Your task to perform on an android device: Open location settings Image 0: 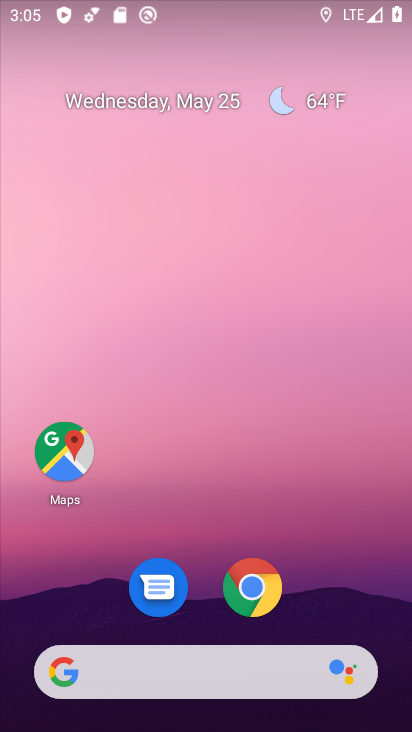
Step 0: drag from (362, 609) to (265, 97)
Your task to perform on an android device: Open location settings Image 1: 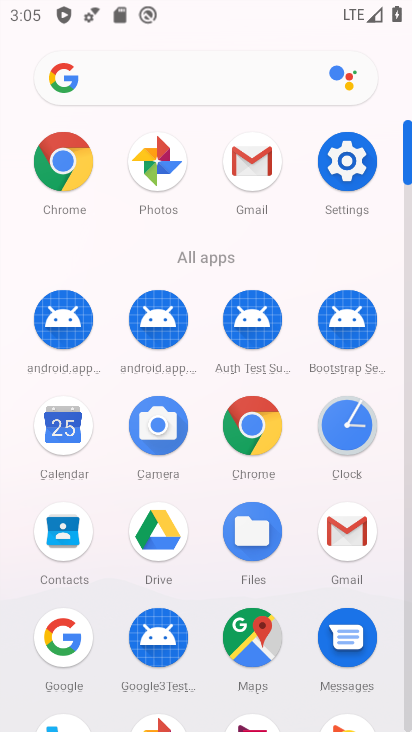
Step 1: click (356, 173)
Your task to perform on an android device: Open location settings Image 2: 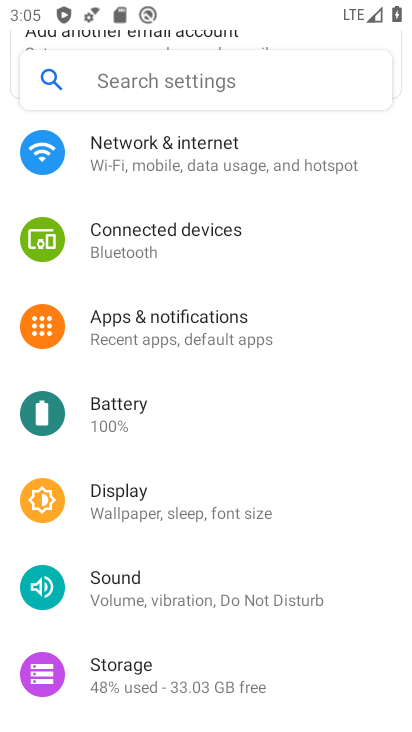
Step 2: drag from (255, 626) to (219, 159)
Your task to perform on an android device: Open location settings Image 3: 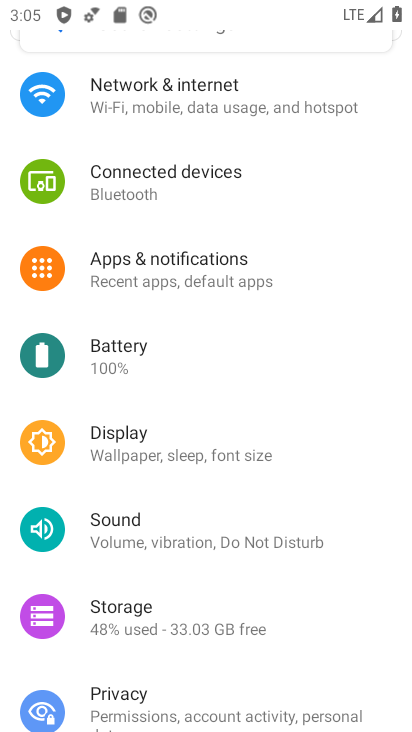
Step 3: drag from (222, 631) to (203, 361)
Your task to perform on an android device: Open location settings Image 4: 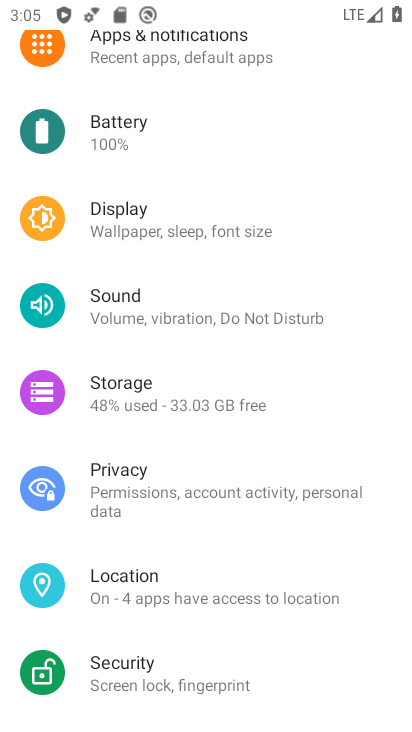
Step 4: click (194, 571)
Your task to perform on an android device: Open location settings Image 5: 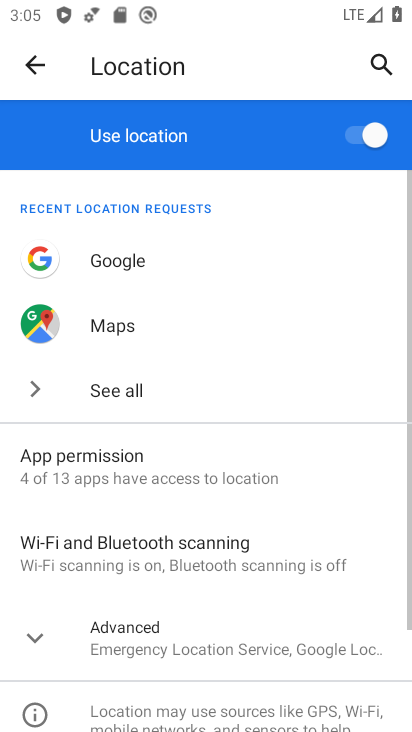
Step 5: task complete